Your task to perform on an android device: Go to Reddit.com Image 0: 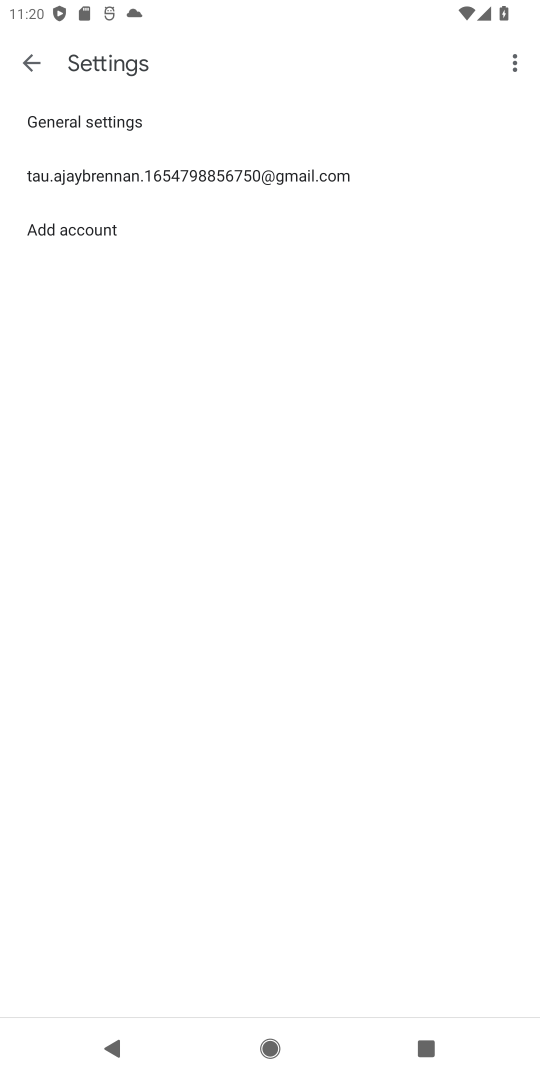
Step 0: press home button
Your task to perform on an android device: Go to Reddit.com Image 1: 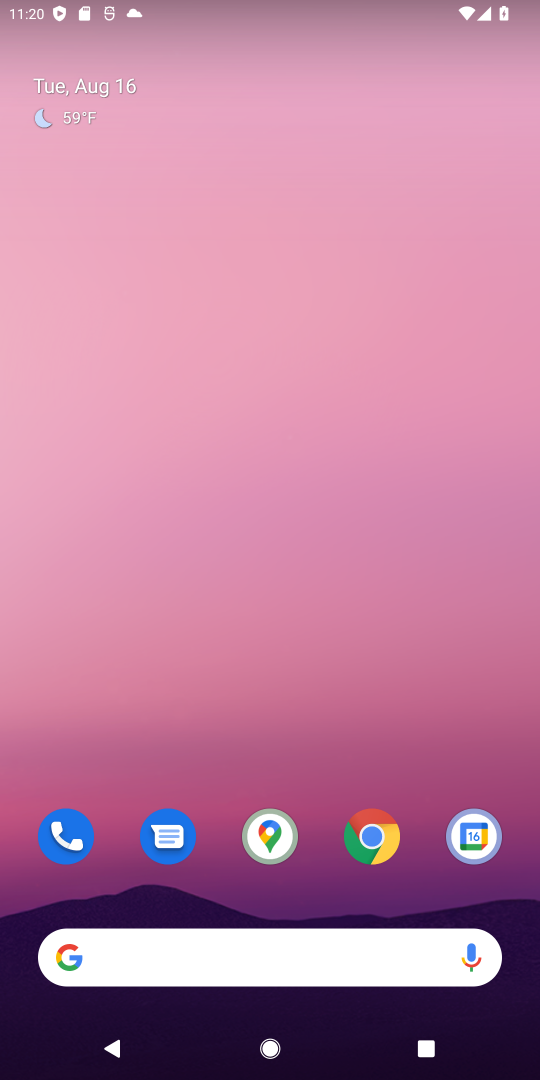
Step 1: click (369, 835)
Your task to perform on an android device: Go to Reddit.com Image 2: 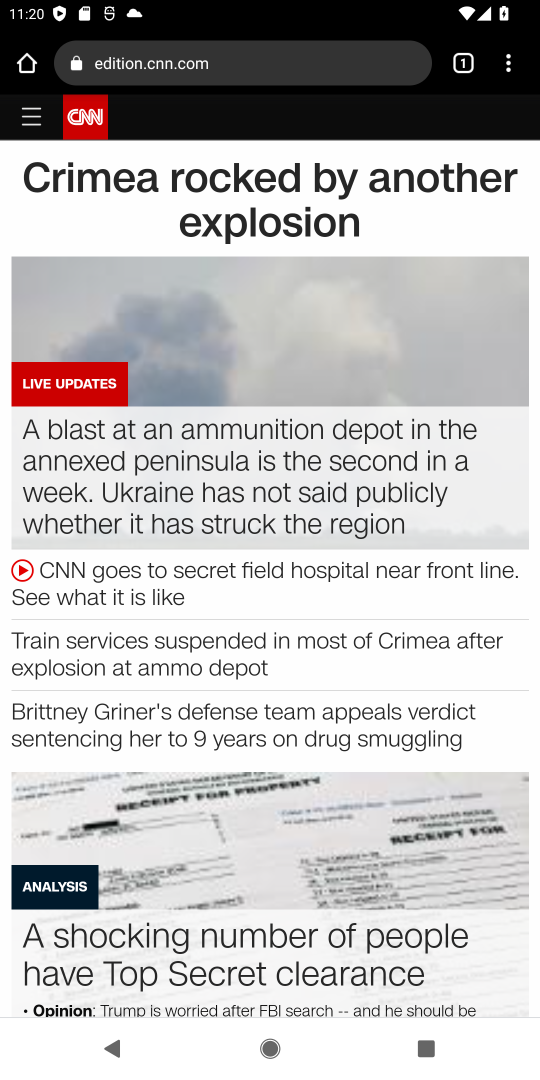
Step 2: click (330, 63)
Your task to perform on an android device: Go to Reddit.com Image 3: 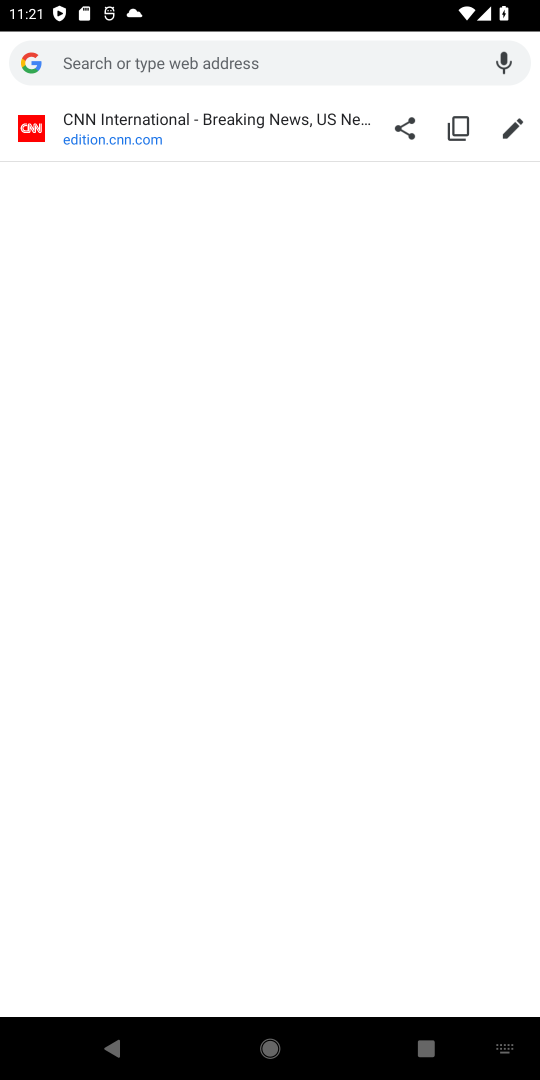
Step 3: type "Reddit.com"
Your task to perform on an android device: Go to Reddit.com Image 4: 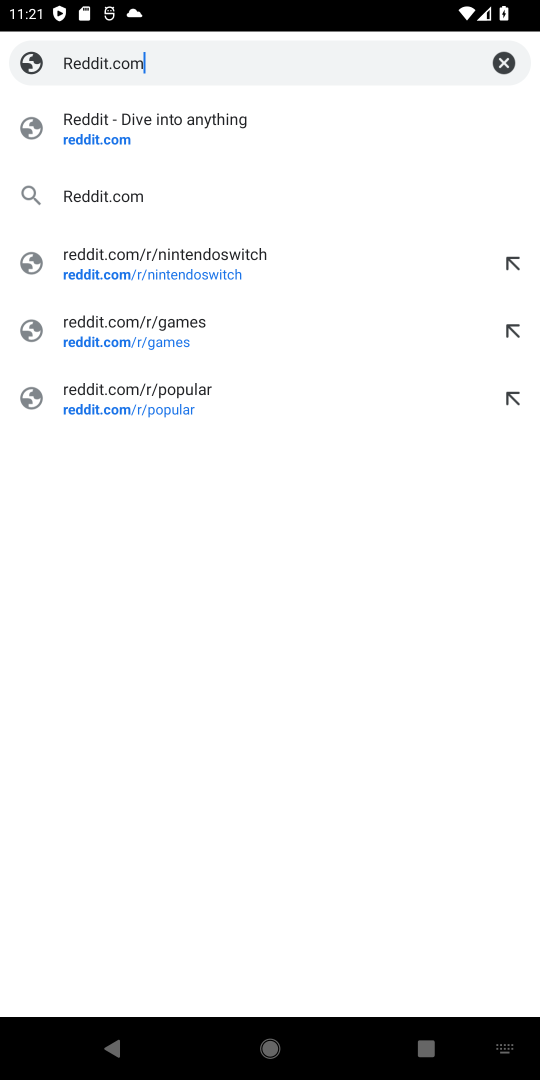
Step 4: click (147, 189)
Your task to perform on an android device: Go to Reddit.com Image 5: 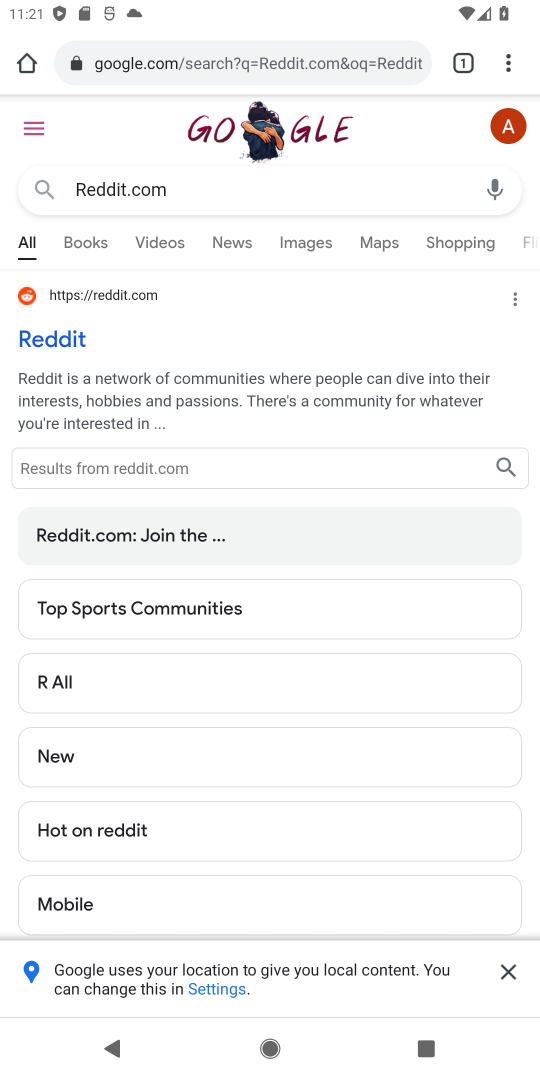
Step 5: click (78, 351)
Your task to perform on an android device: Go to Reddit.com Image 6: 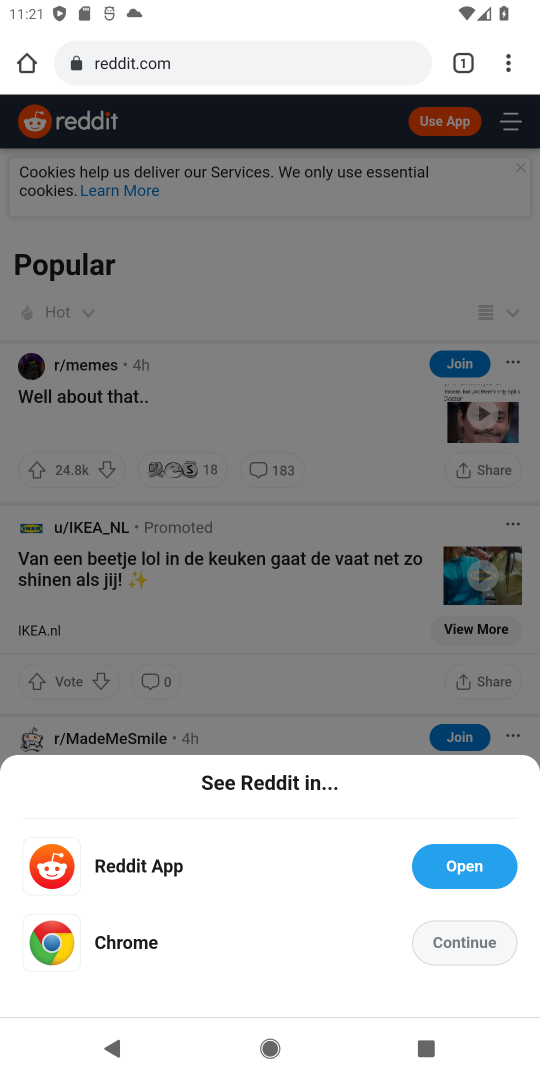
Step 6: click (466, 941)
Your task to perform on an android device: Go to Reddit.com Image 7: 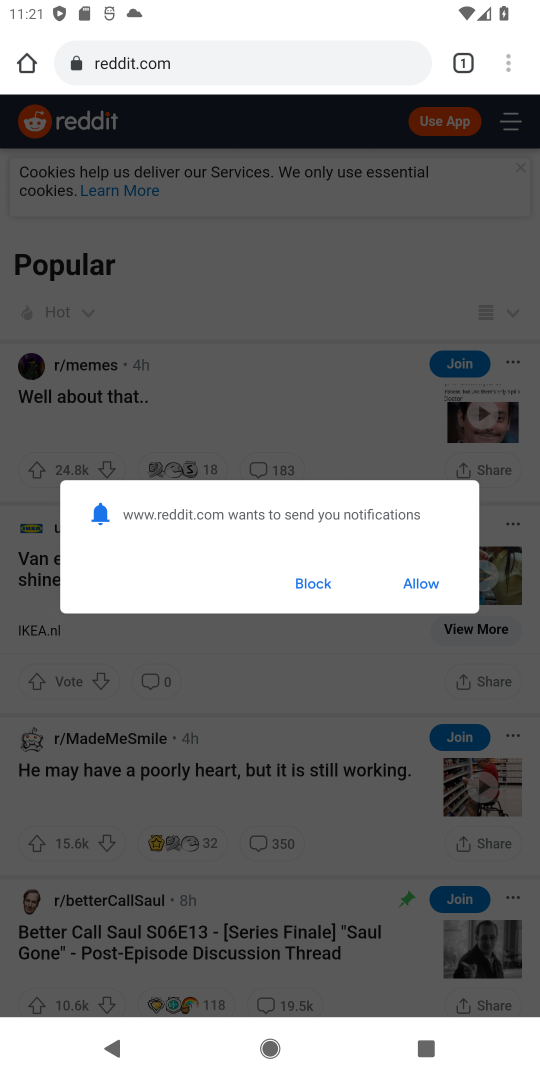
Step 7: click (412, 586)
Your task to perform on an android device: Go to Reddit.com Image 8: 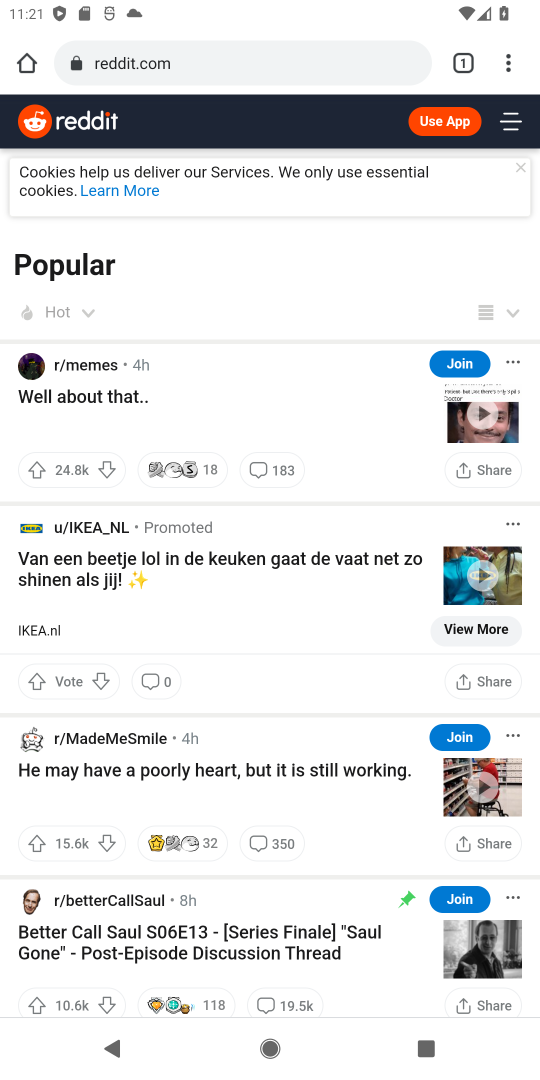
Step 8: task complete